Your task to perform on an android device: install app "Nova Launcher" Image 0: 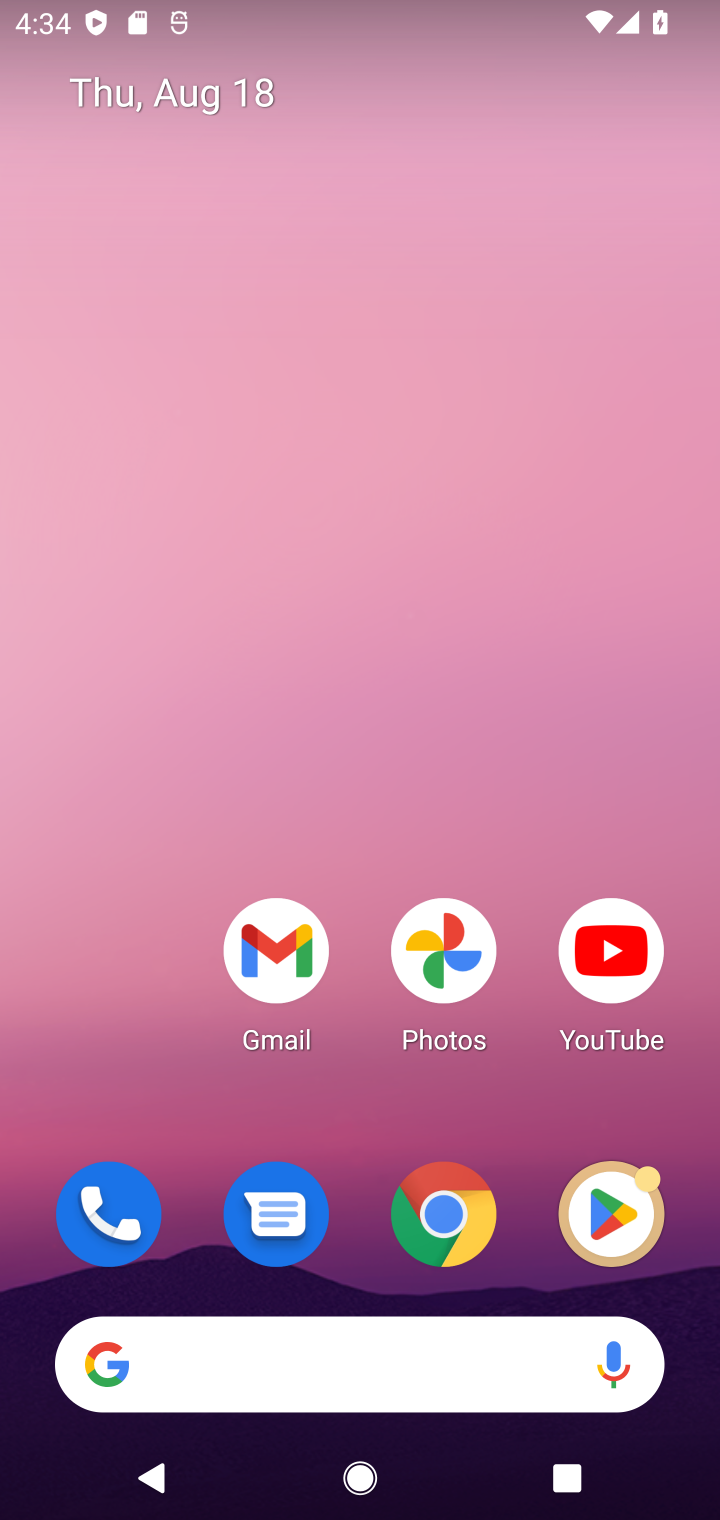
Step 0: drag from (347, 1215) to (496, 15)
Your task to perform on an android device: install app "Nova Launcher" Image 1: 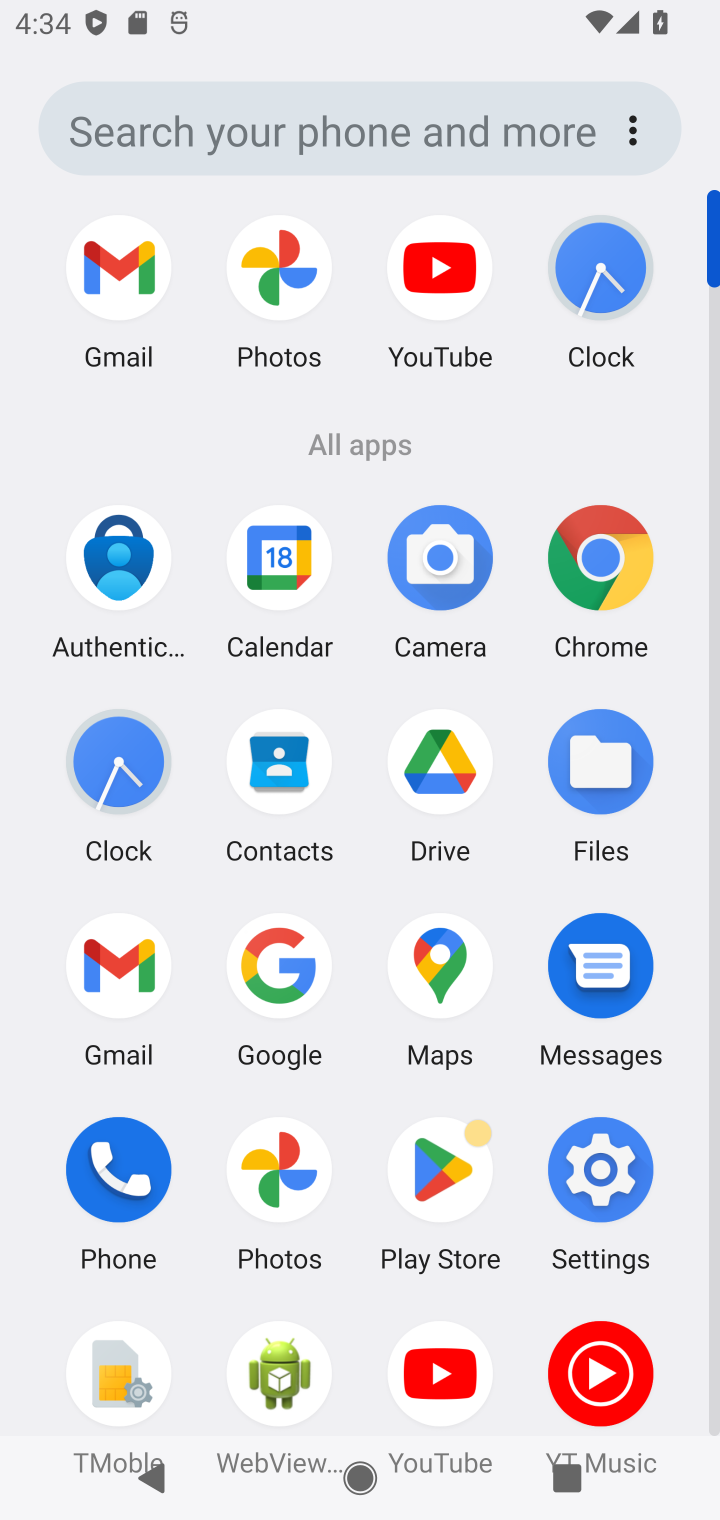
Step 1: click (469, 1190)
Your task to perform on an android device: install app "Nova Launcher" Image 2: 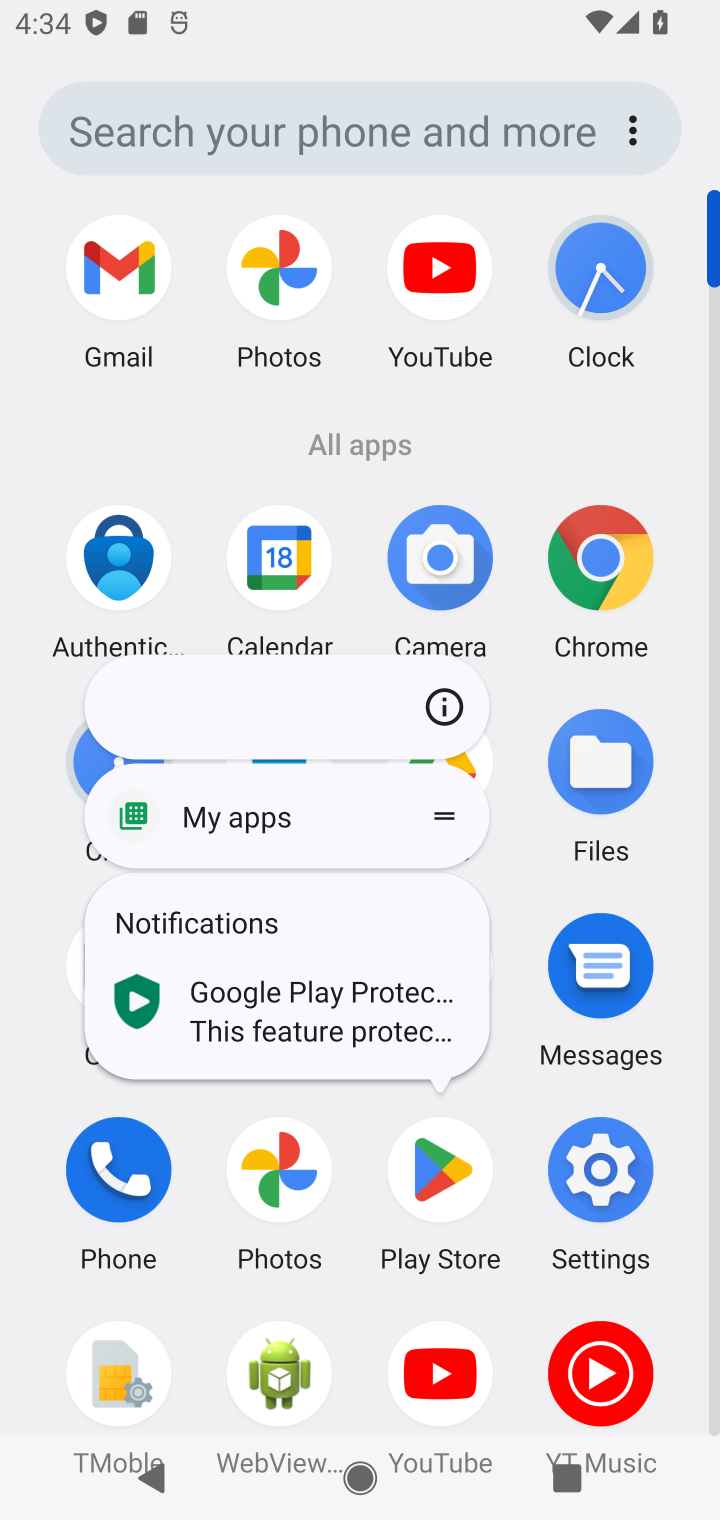
Step 2: click (474, 1177)
Your task to perform on an android device: install app "Nova Launcher" Image 3: 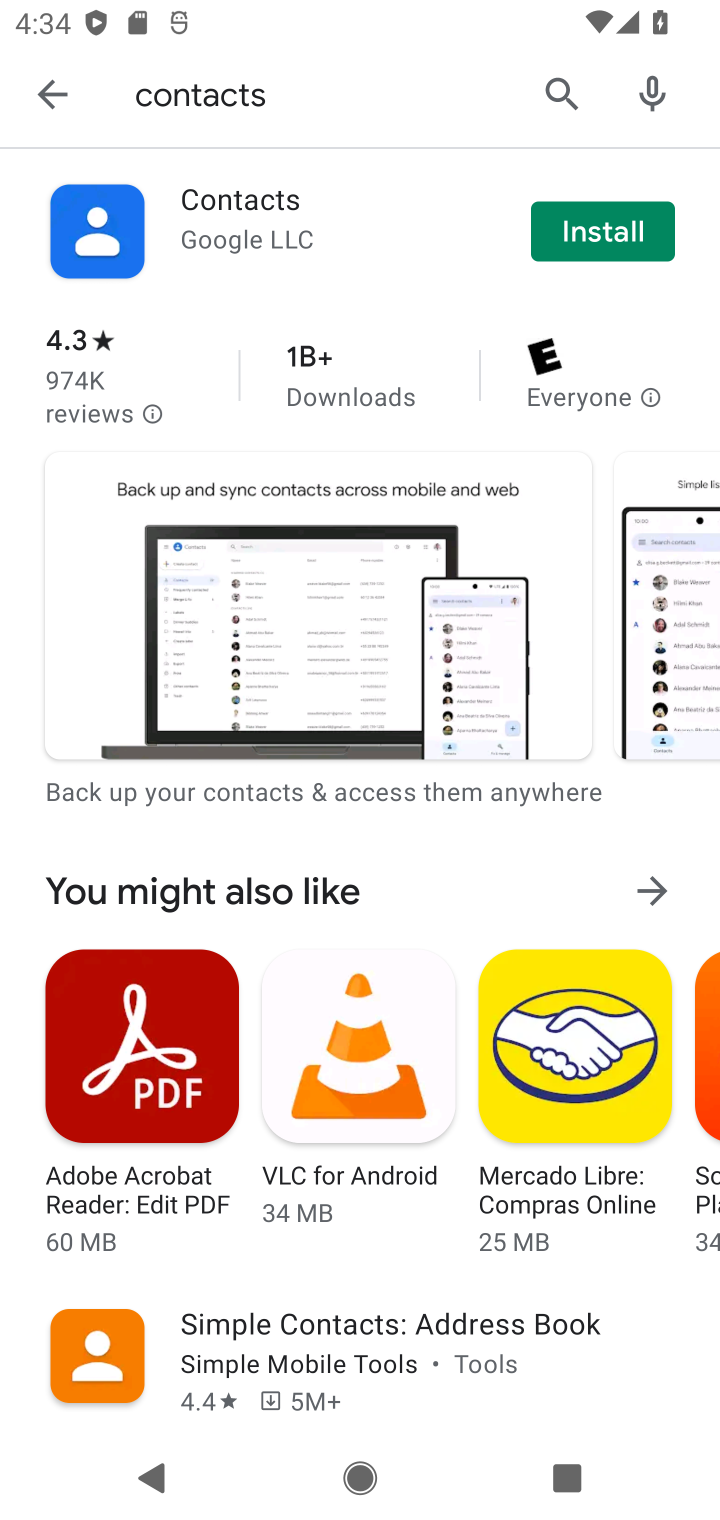
Step 3: click (266, 113)
Your task to perform on an android device: install app "Nova Launcher" Image 4: 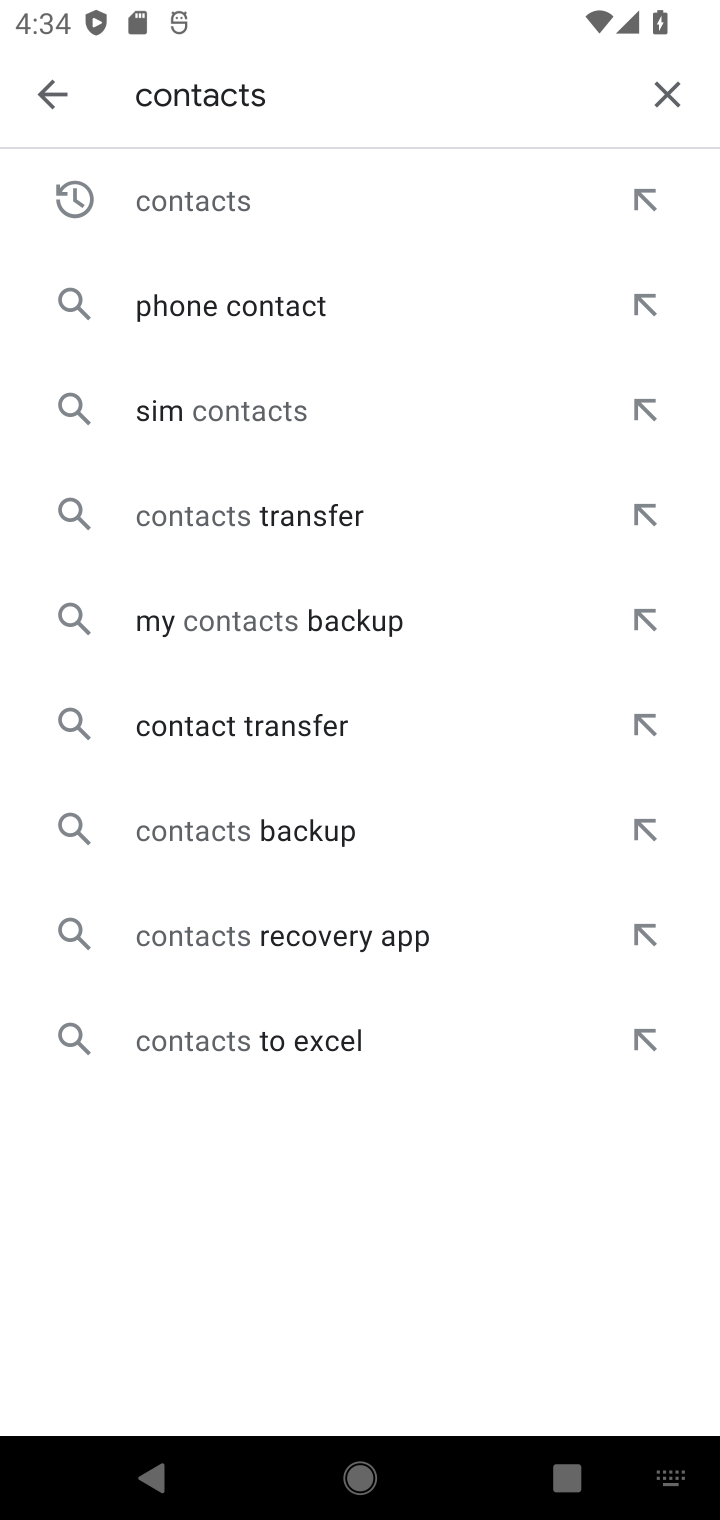
Step 4: click (653, 93)
Your task to perform on an android device: install app "Nova Launcher" Image 5: 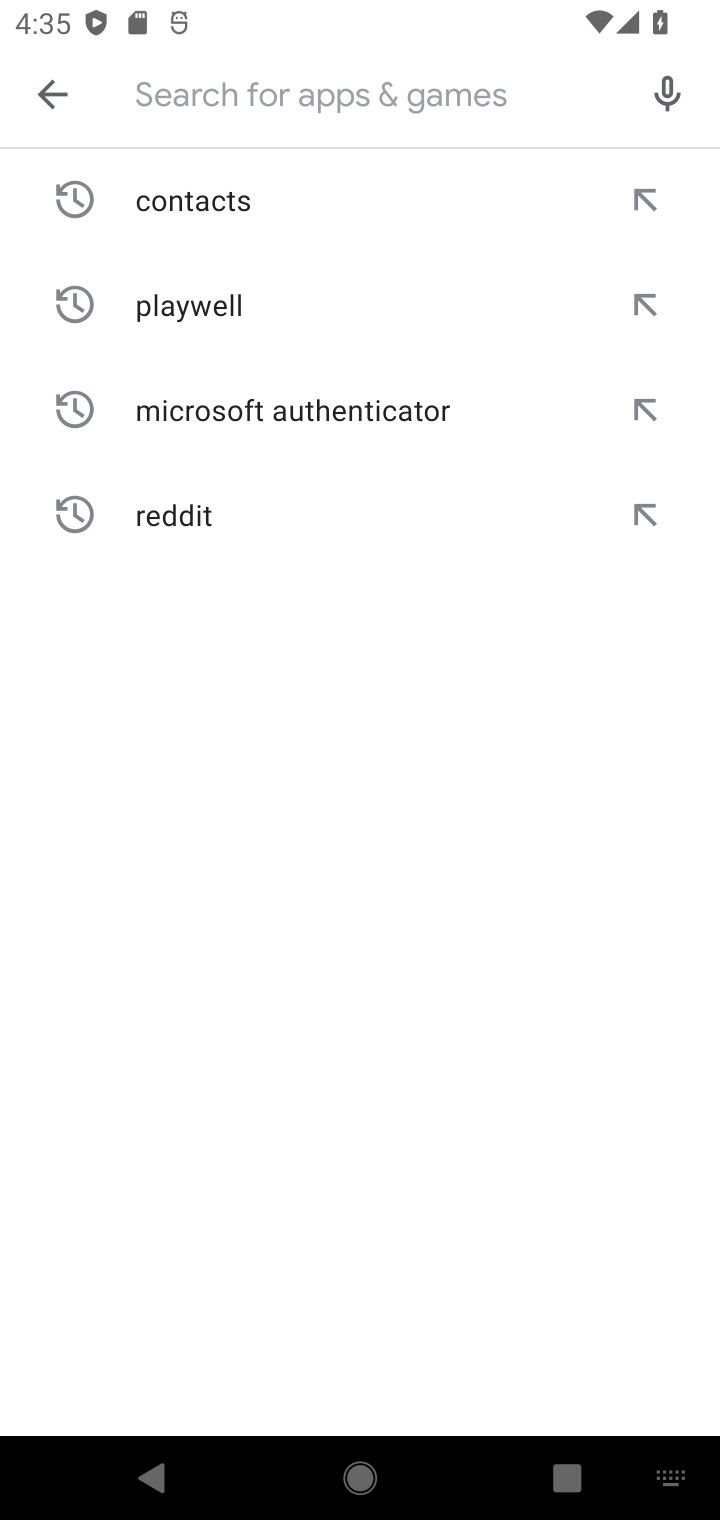
Step 5: type "Nova launcher"
Your task to perform on an android device: install app "Nova Launcher" Image 6: 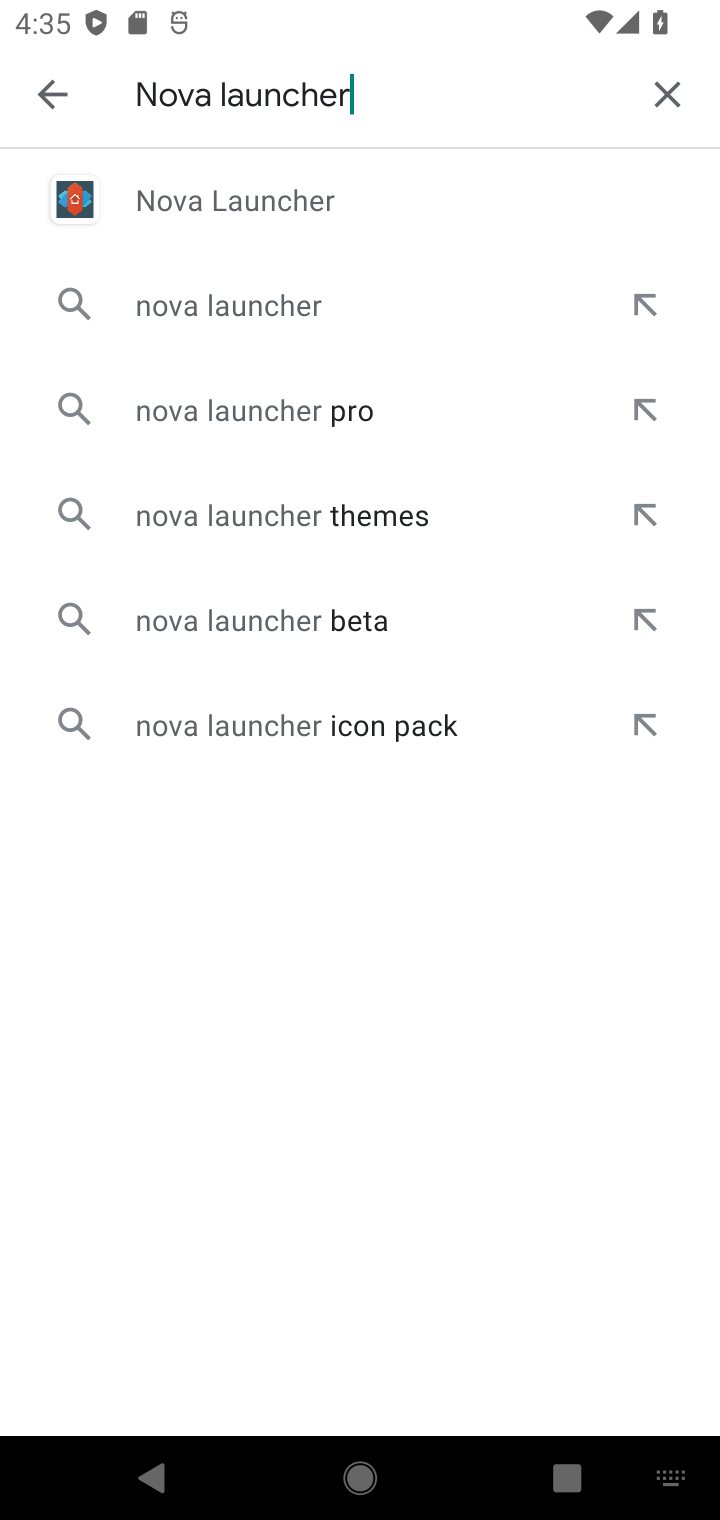
Step 6: click (312, 209)
Your task to perform on an android device: install app "Nova Launcher" Image 7: 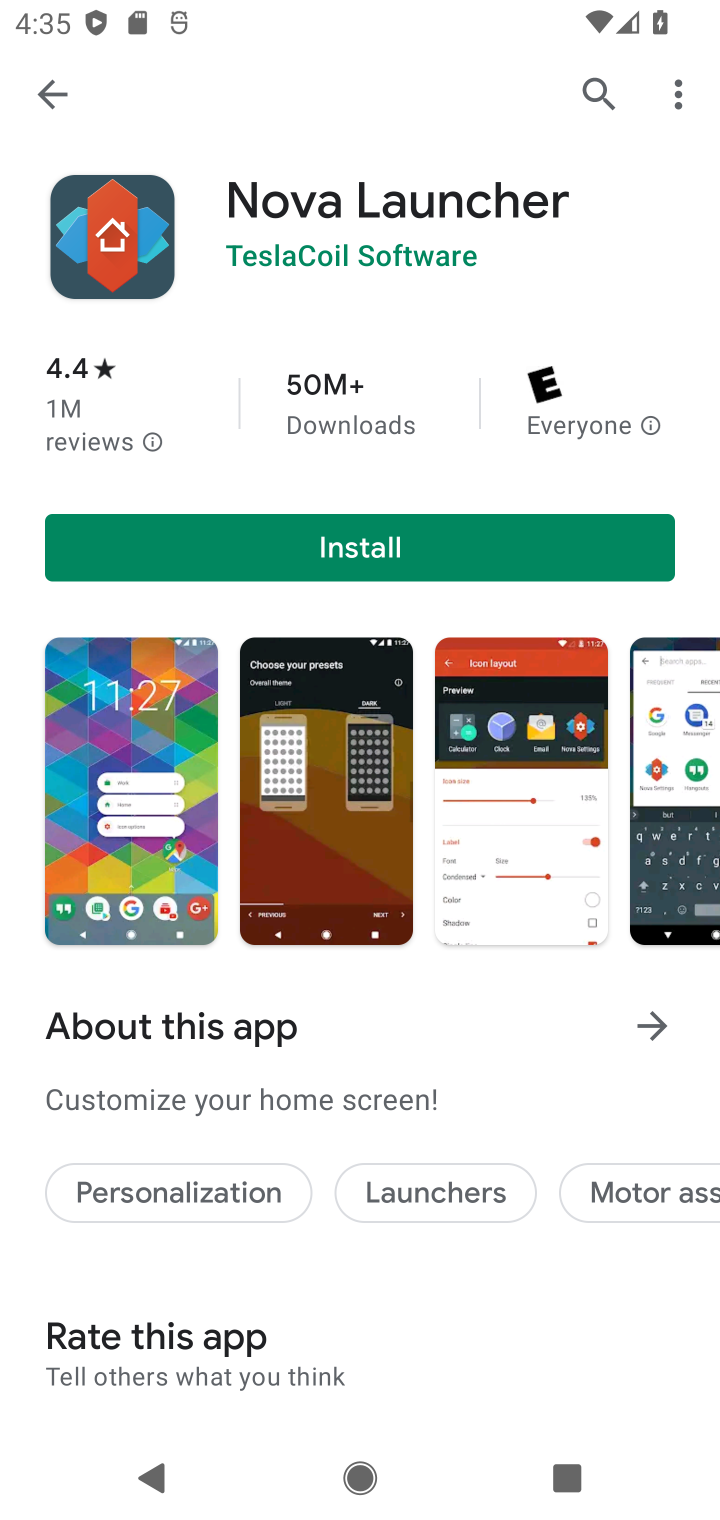
Step 7: click (342, 565)
Your task to perform on an android device: install app "Nova Launcher" Image 8: 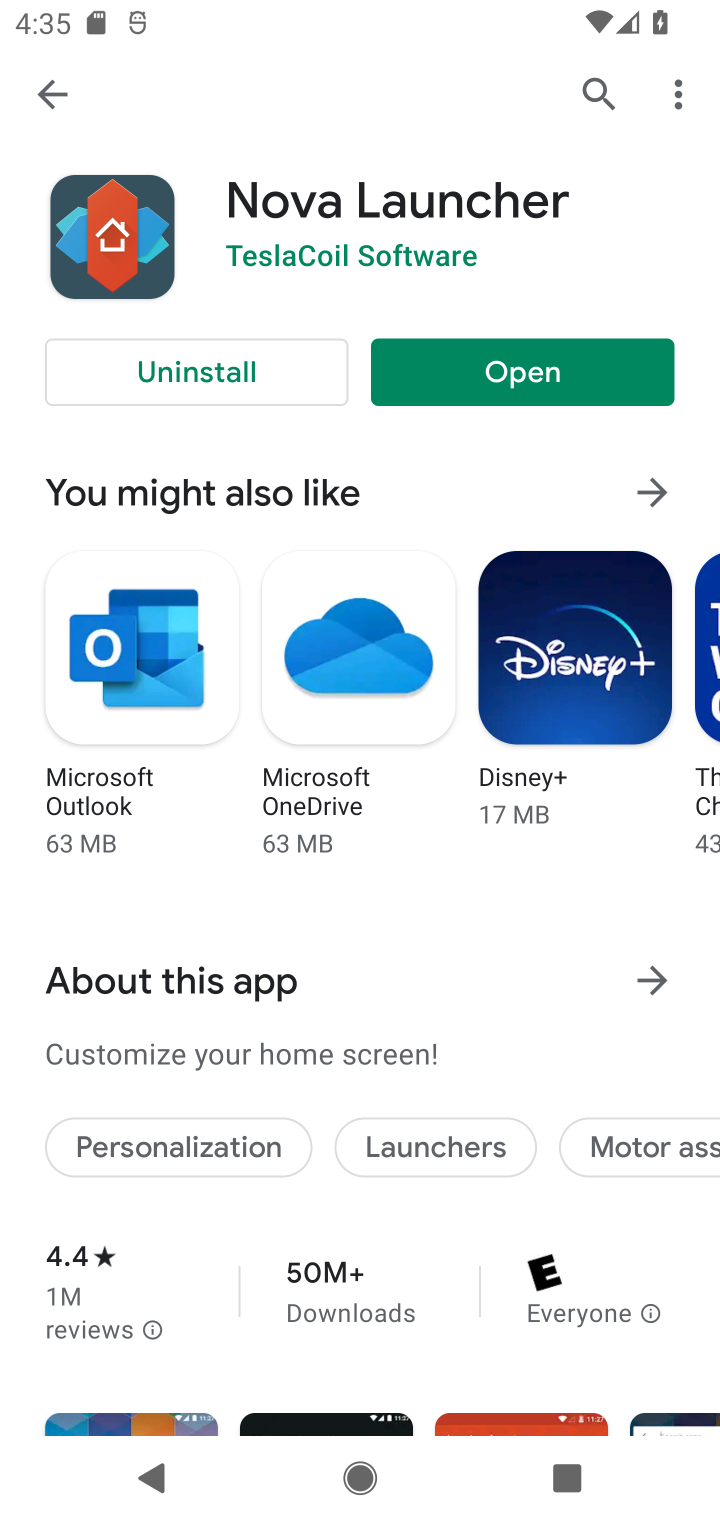
Step 8: task complete